Your task to perform on an android device: turn off smart reply in the gmail app Image 0: 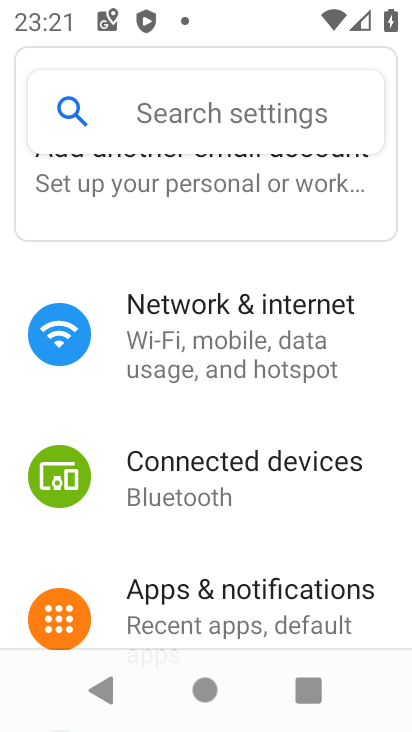
Step 0: press home button
Your task to perform on an android device: turn off smart reply in the gmail app Image 1: 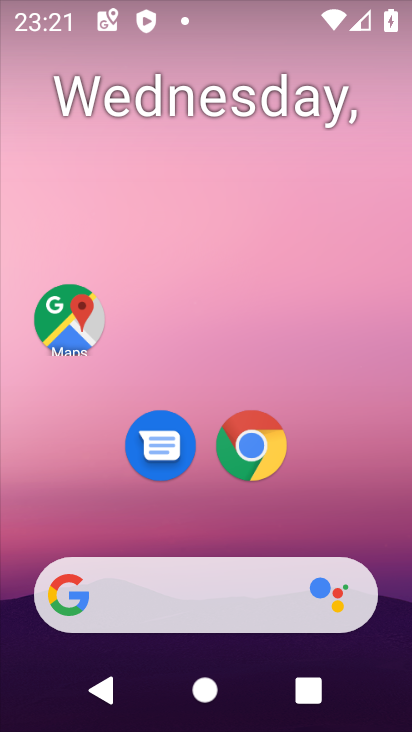
Step 1: click (255, 432)
Your task to perform on an android device: turn off smart reply in the gmail app Image 2: 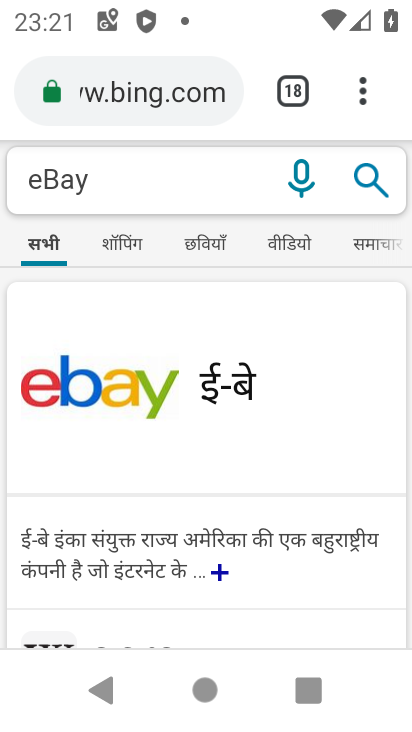
Step 2: click (374, 73)
Your task to perform on an android device: turn off smart reply in the gmail app Image 3: 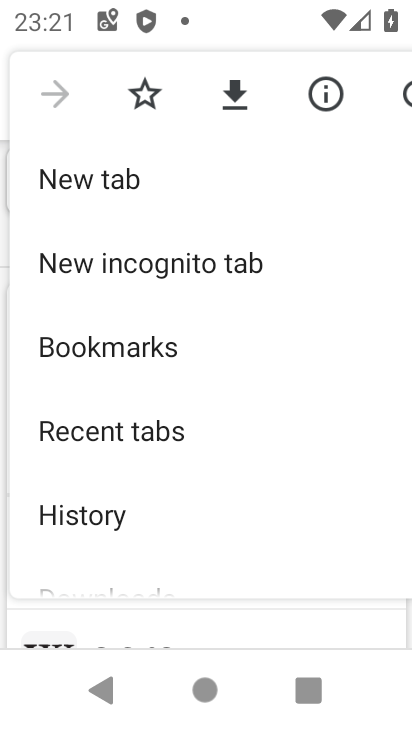
Step 3: drag from (241, 566) to (262, 181)
Your task to perform on an android device: turn off smart reply in the gmail app Image 4: 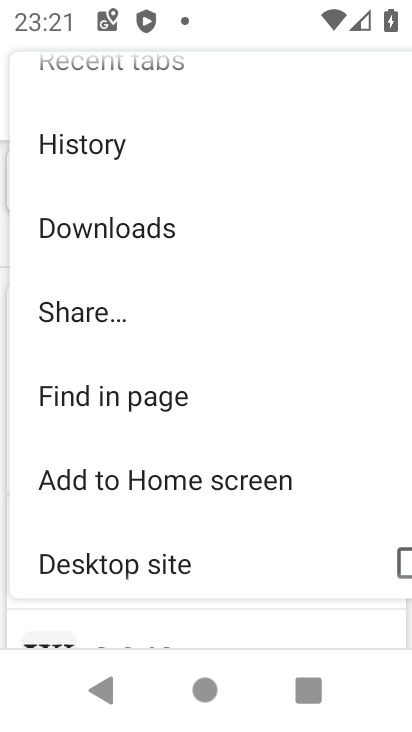
Step 4: drag from (175, 524) to (213, 191)
Your task to perform on an android device: turn off smart reply in the gmail app Image 5: 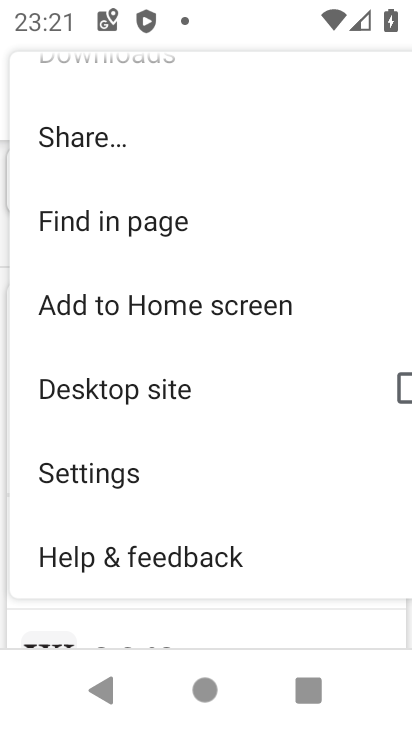
Step 5: click (92, 462)
Your task to perform on an android device: turn off smart reply in the gmail app Image 6: 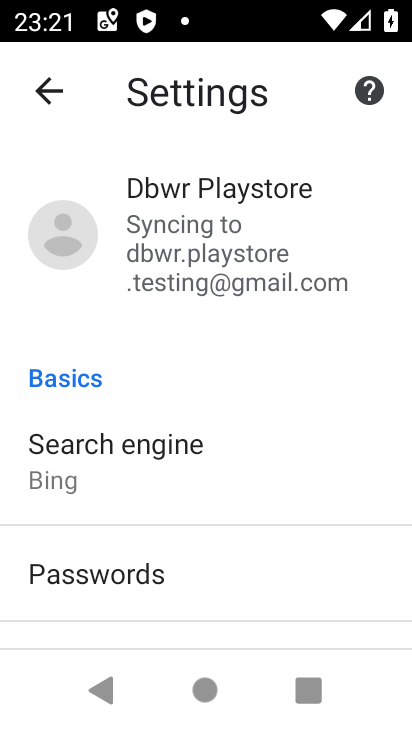
Step 6: drag from (205, 618) to (270, 106)
Your task to perform on an android device: turn off smart reply in the gmail app Image 7: 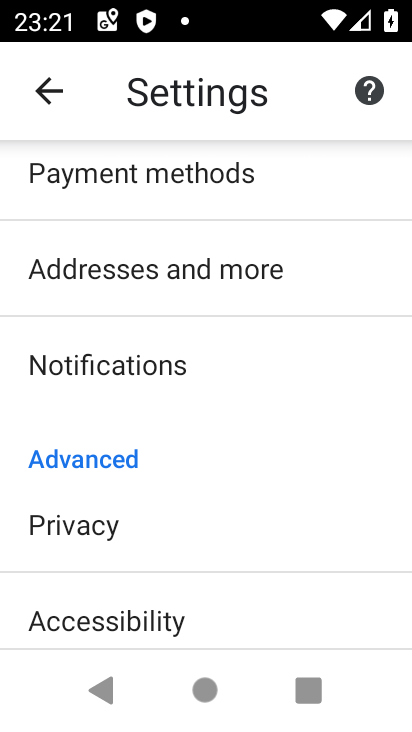
Step 7: drag from (173, 513) to (223, 154)
Your task to perform on an android device: turn off smart reply in the gmail app Image 8: 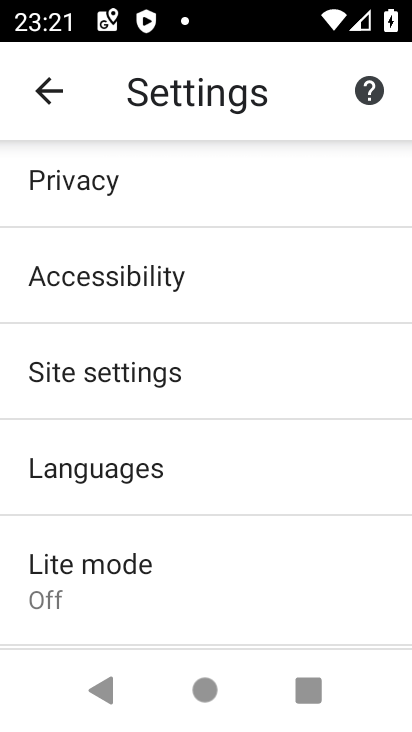
Step 8: drag from (131, 553) to (160, 330)
Your task to perform on an android device: turn off smart reply in the gmail app Image 9: 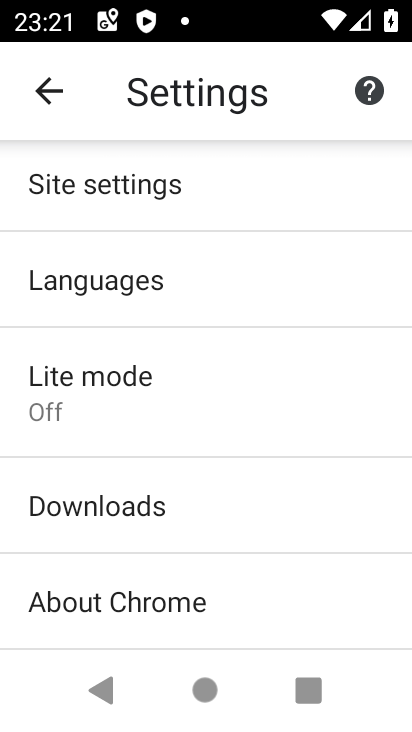
Step 9: drag from (128, 571) to (187, 247)
Your task to perform on an android device: turn off smart reply in the gmail app Image 10: 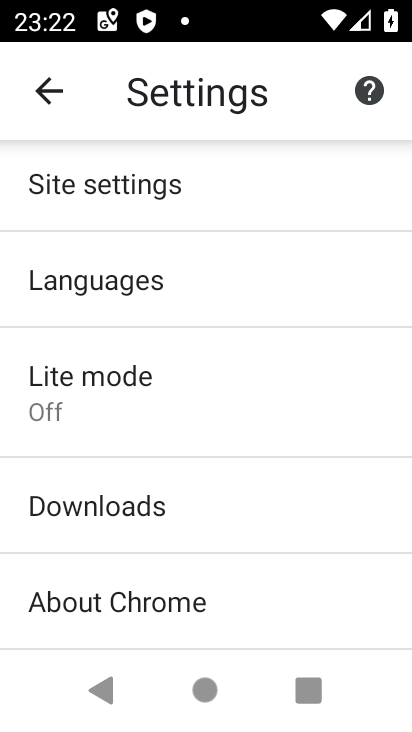
Step 10: press home button
Your task to perform on an android device: turn off smart reply in the gmail app Image 11: 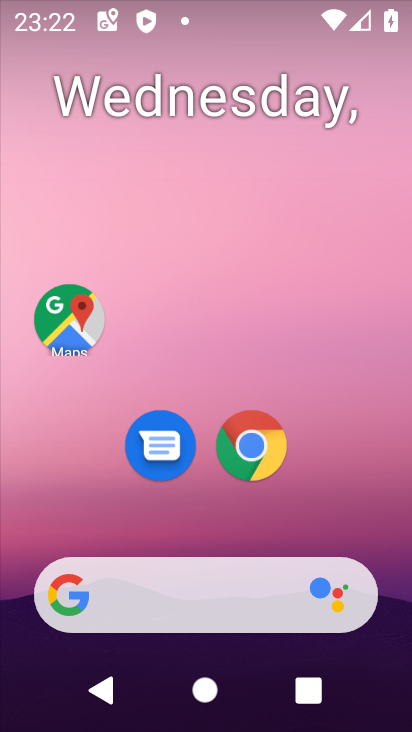
Step 11: drag from (319, 365) to (332, 212)
Your task to perform on an android device: turn off smart reply in the gmail app Image 12: 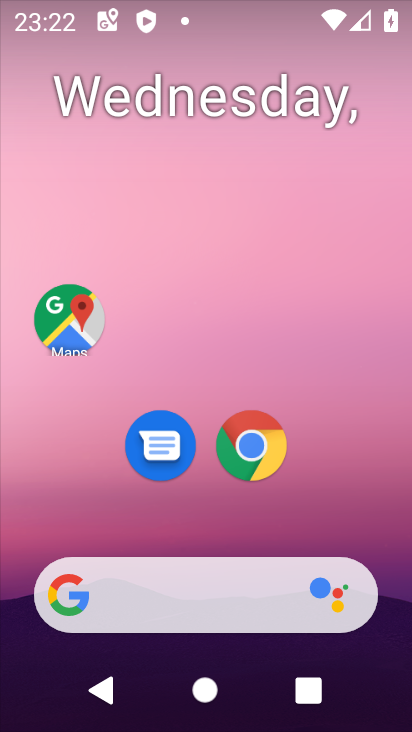
Step 12: drag from (313, 495) to (318, 299)
Your task to perform on an android device: turn off smart reply in the gmail app Image 13: 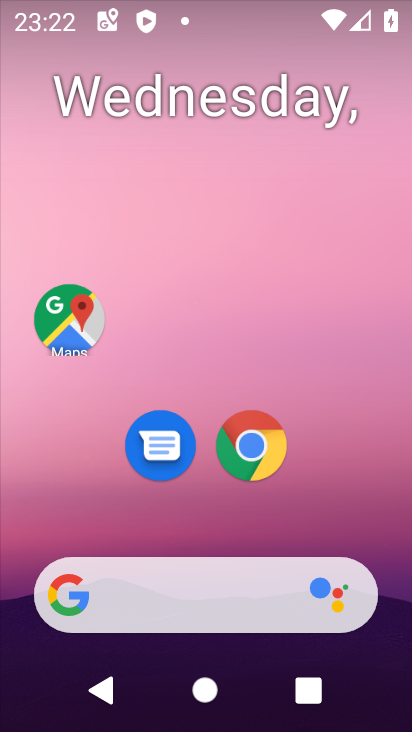
Step 13: drag from (317, 561) to (289, 178)
Your task to perform on an android device: turn off smart reply in the gmail app Image 14: 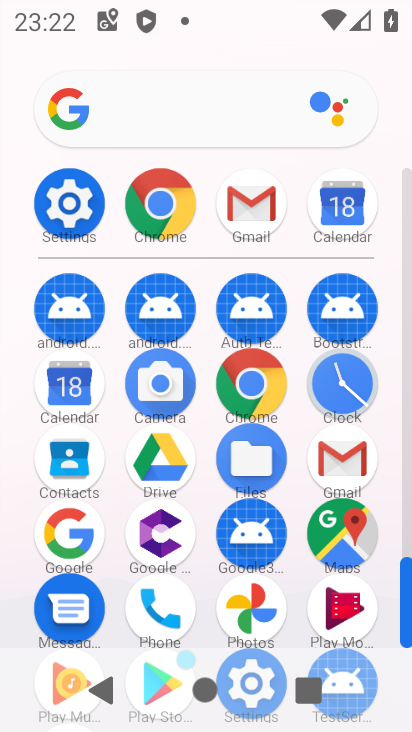
Step 14: click (343, 462)
Your task to perform on an android device: turn off smart reply in the gmail app Image 15: 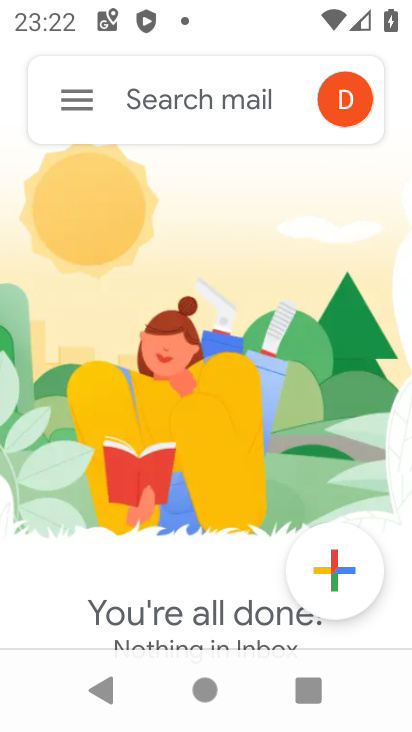
Step 15: click (62, 98)
Your task to perform on an android device: turn off smart reply in the gmail app Image 16: 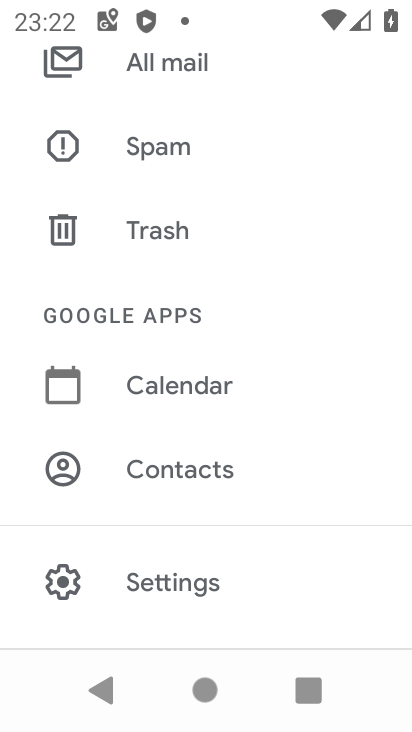
Step 16: click (150, 582)
Your task to perform on an android device: turn off smart reply in the gmail app Image 17: 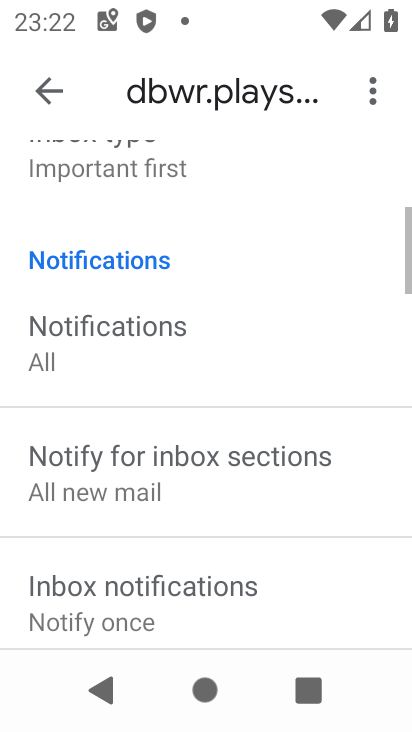
Step 17: drag from (239, 539) to (260, 198)
Your task to perform on an android device: turn off smart reply in the gmail app Image 18: 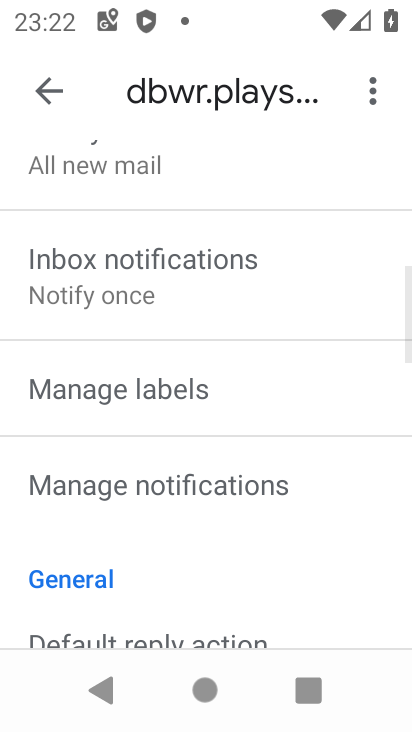
Step 18: drag from (212, 566) to (262, 177)
Your task to perform on an android device: turn off smart reply in the gmail app Image 19: 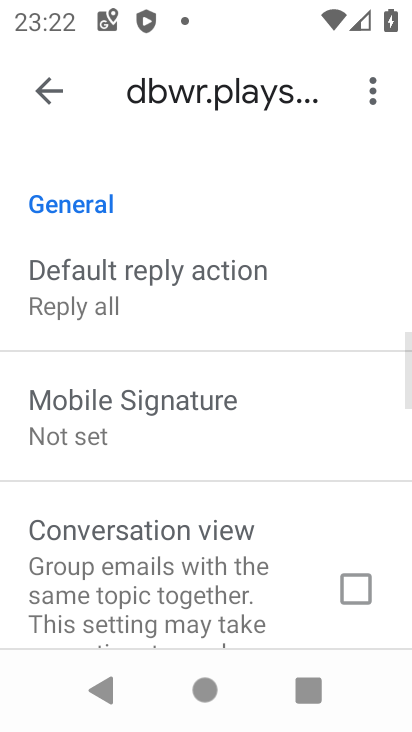
Step 19: drag from (214, 488) to (230, 176)
Your task to perform on an android device: turn off smart reply in the gmail app Image 20: 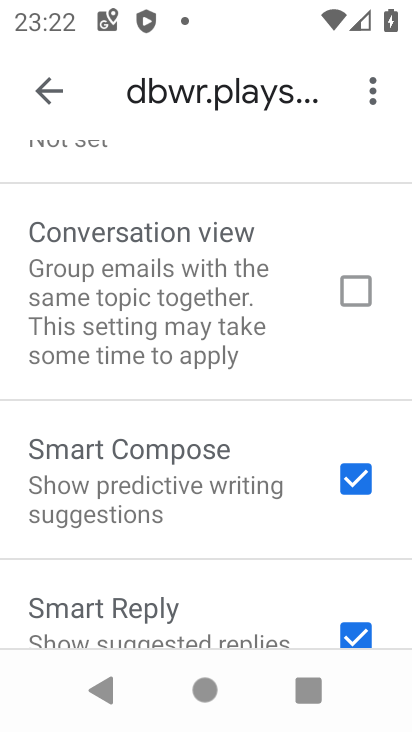
Step 20: click (342, 633)
Your task to perform on an android device: turn off smart reply in the gmail app Image 21: 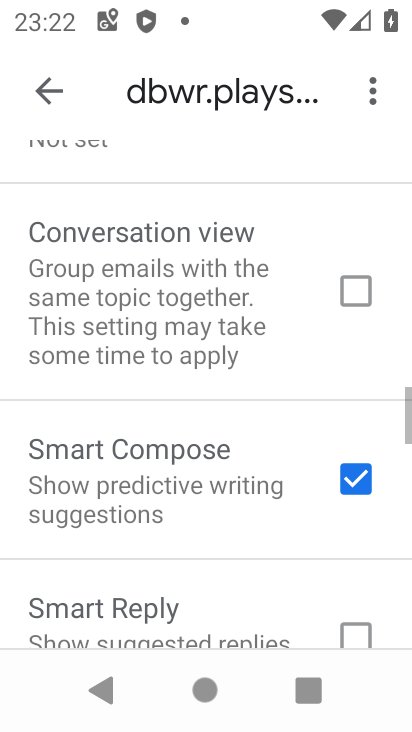
Step 21: task complete